Your task to perform on an android device: Open Google Chrome Image 0: 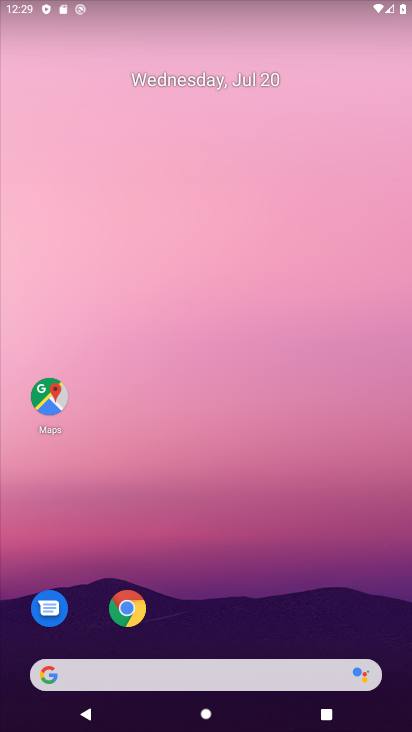
Step 0: click (133, 608)
Your task to perform on an android device: Open Google Chrome Image 1: 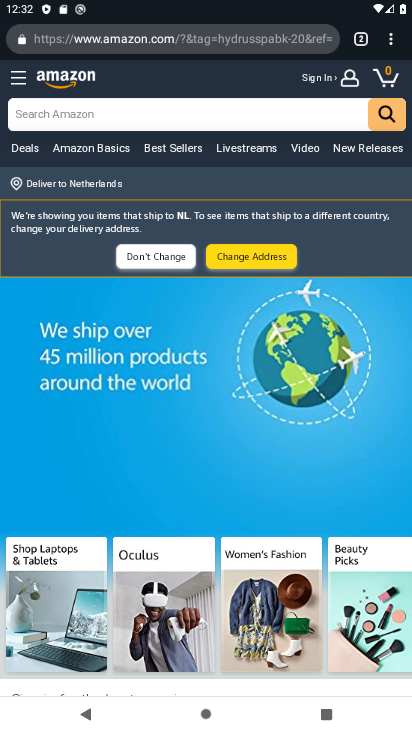
Step 1: task complete